Your task to perform on an android device: see creations saved in the google photos Image 0: 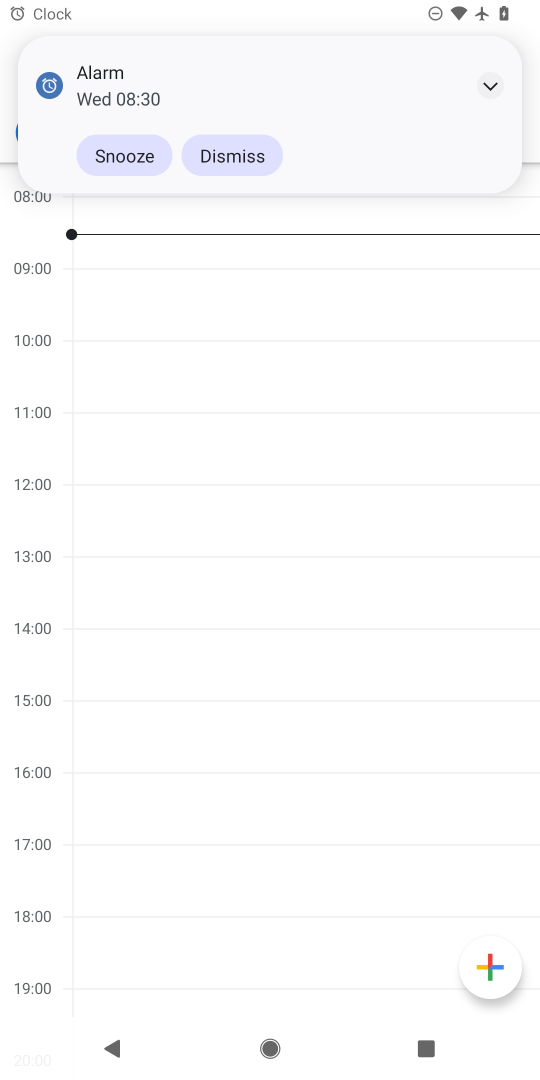
Step 0: press home button
Your task to perform on an android device: see creations saved in the google photos Image 1: 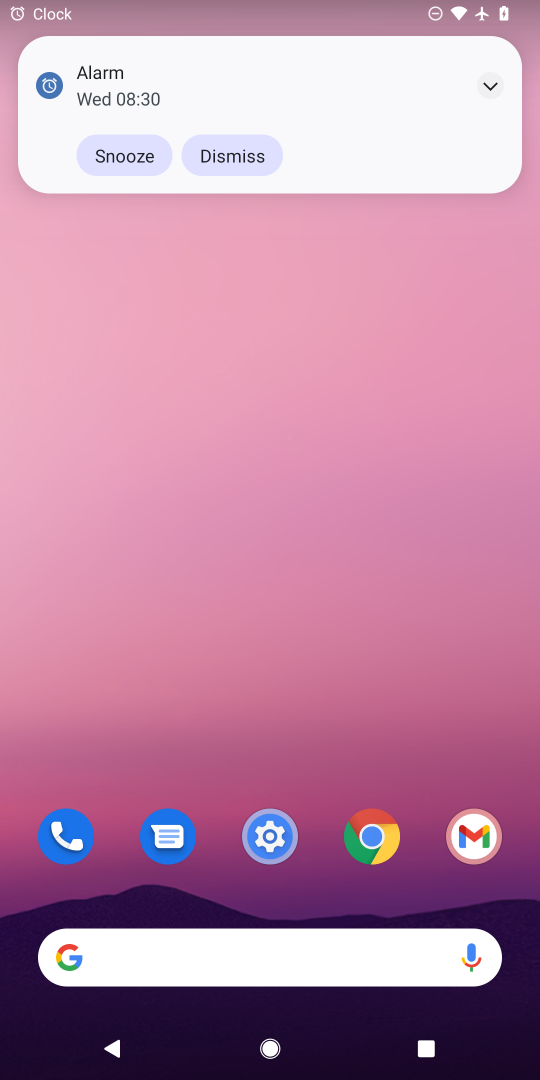
Step 1: drag from (239, 688) to (232, 273)
Your task to perform on an android device: see creations saved in the google photos Image 2: 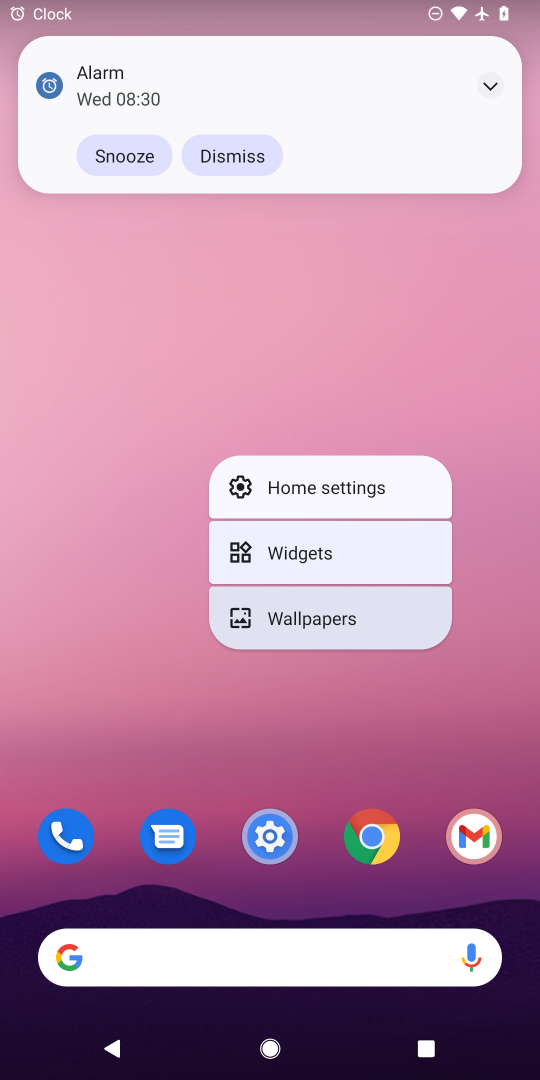
Step 2: click (65, 683)
Your task to perform on an android device: see creations saved in the google photos Image 3: 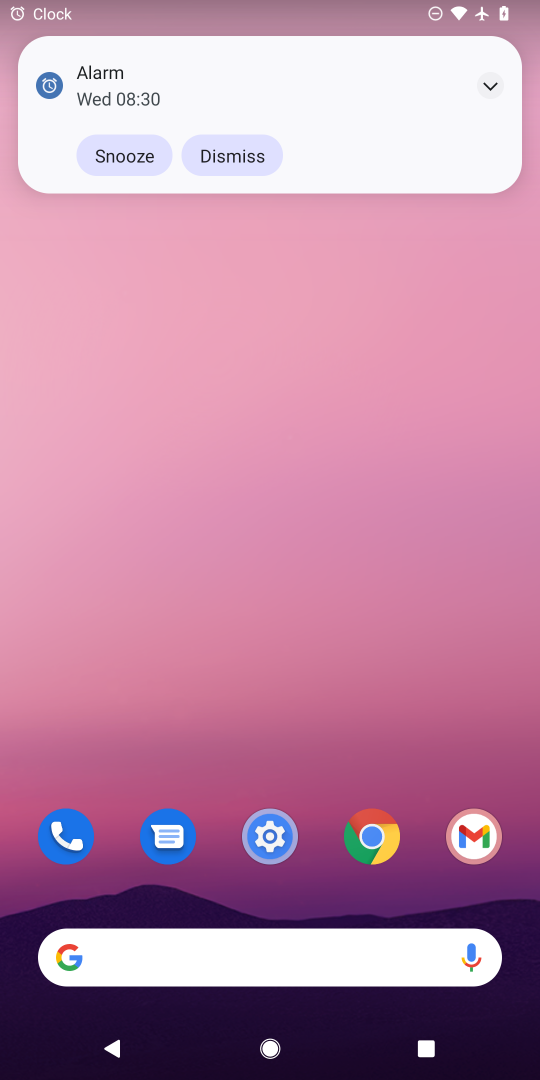
Step 3: drag from (218, 915) to (270, 348)
Your task to perform on an android device: see creations saved in the google photos Image 4: 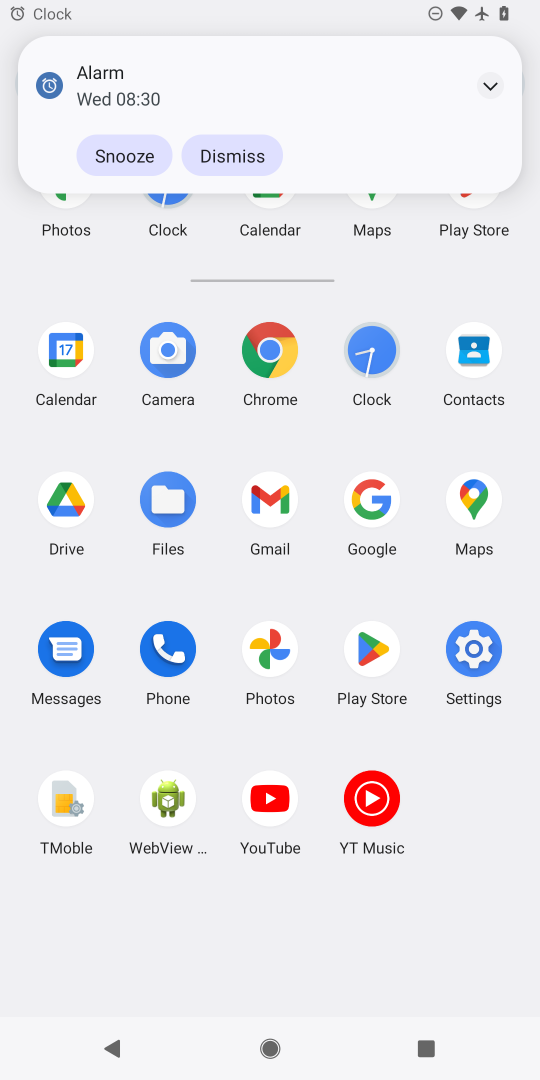
Step 4: click (247, 632)
Your task to perform on an android device: see creations saved in the google photos Image 5: 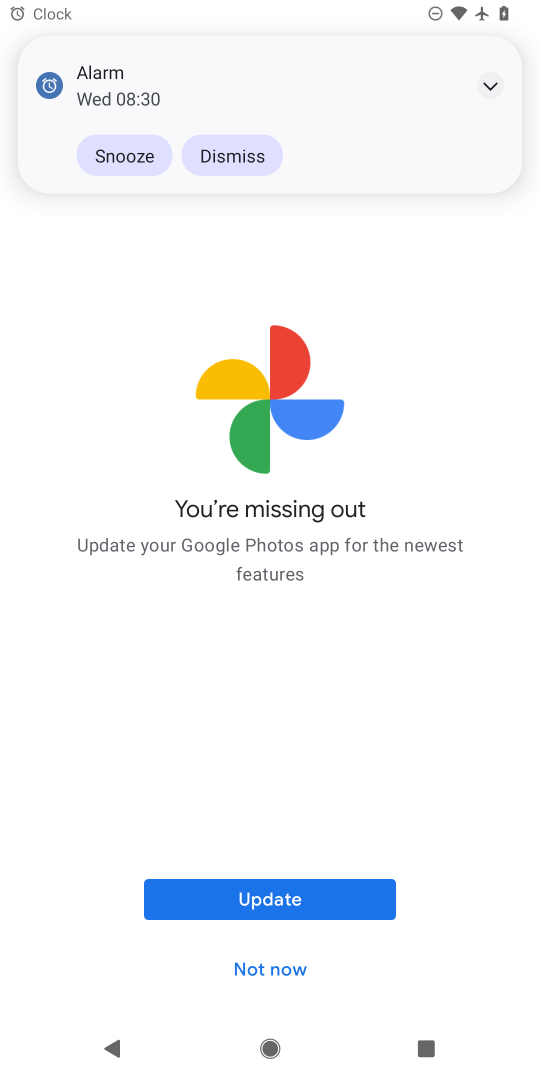
Step 5: click (276, 970)
Your task to perform on an android device: see creations saved in the google photos Image 6: 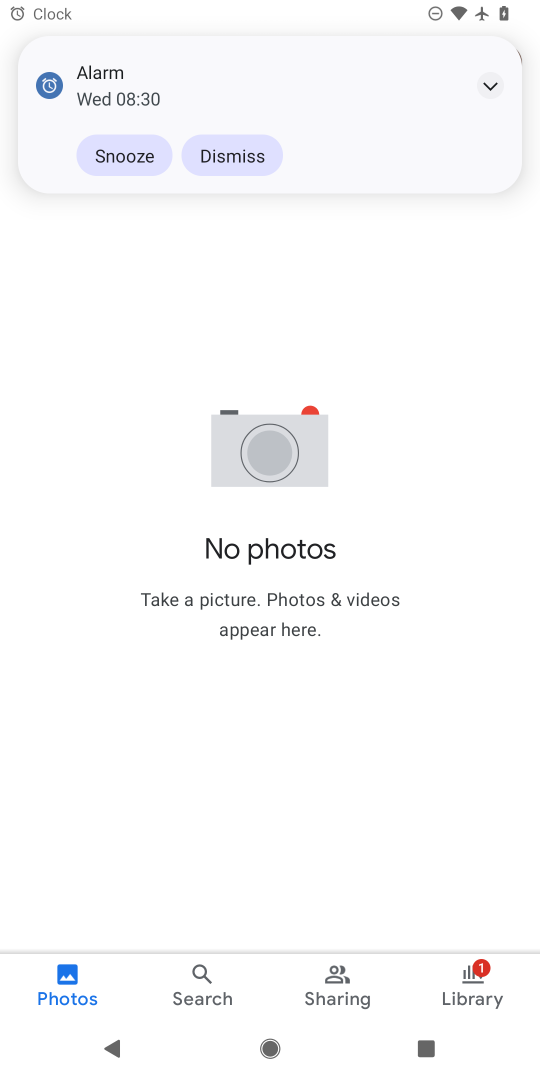
Step 6: task complete